Your task to perform on an android device: Go to Android settings Image 0: 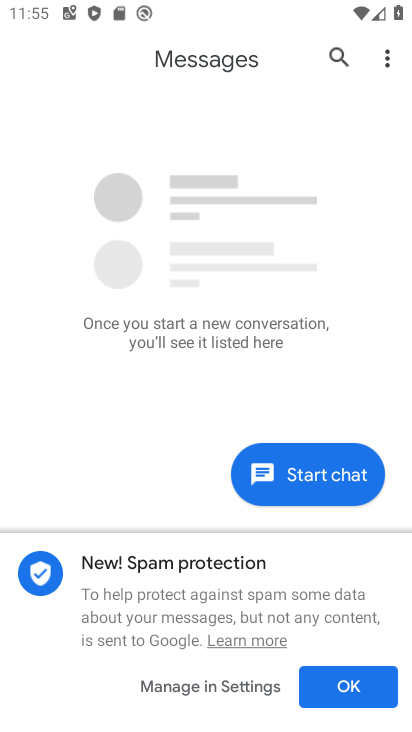
Step 0: press home button
Your task to perform on an android device: Go to Android settings Image 1: 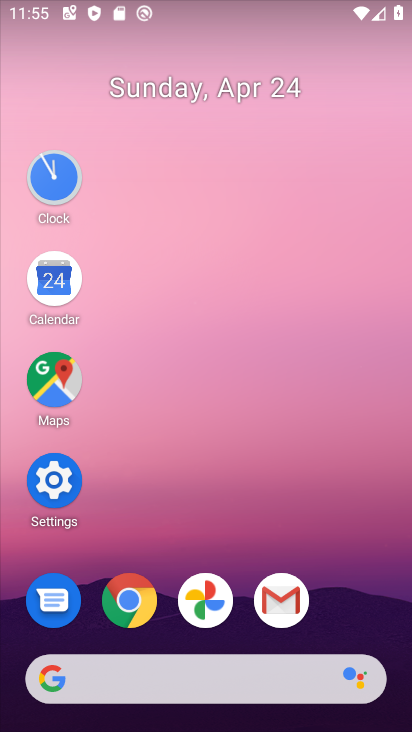
Step 1: click (60, 489)
Your task to perform on an android device: Go to Android settings Image 2: 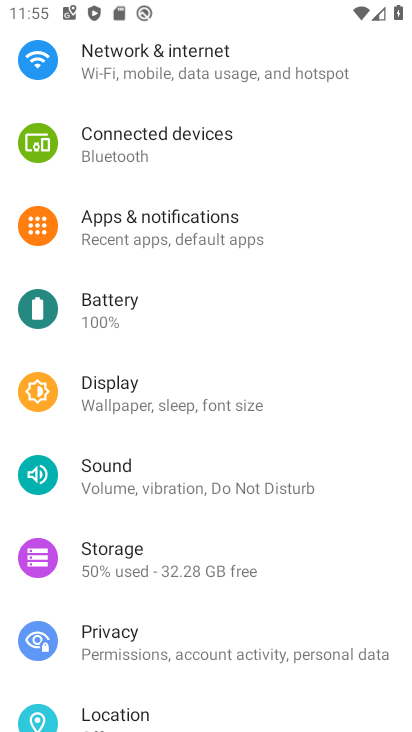
Step 2: drag from (214, 593) to (220, 11)
Your task to perform on an android device: Go to Android settings Image 3: 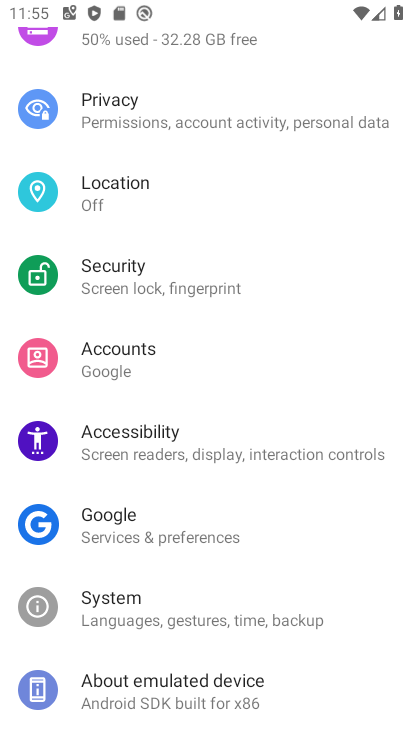
Step 3: click (164, 680)
Your task to perform on an android device: Go to Android settings Image 4: 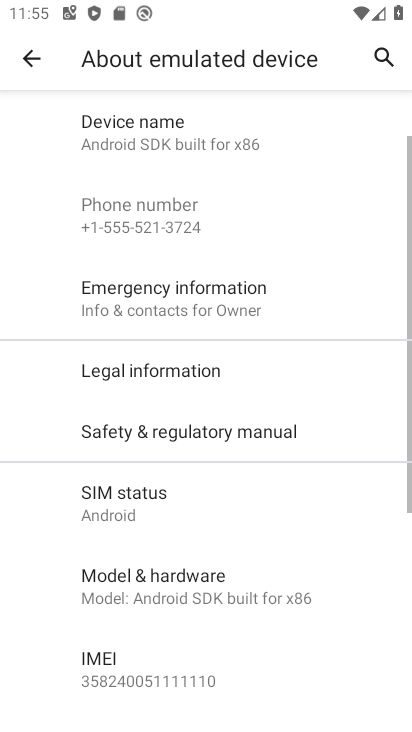
Step 4: drag from (186, 617) to (173, 246)
Your task to perform on an android device: Go to Android settings Image 5: 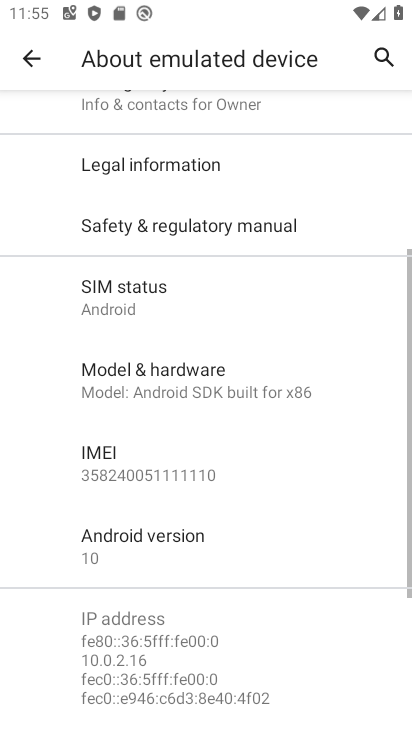
Step 5: click (131, 540)
Your task to perform on an android device: Go to Android settings Image 6: 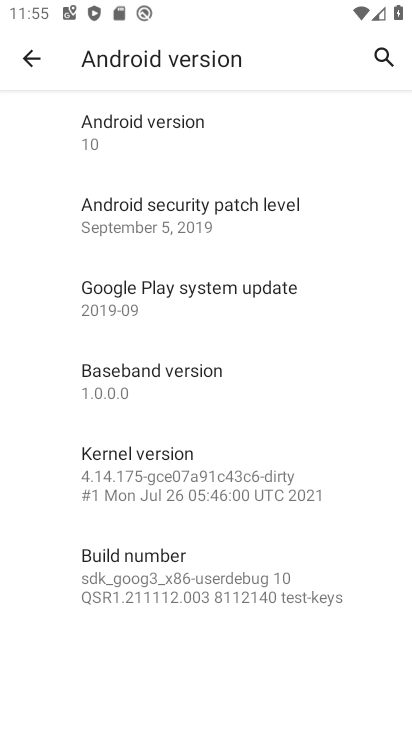
Step 6: task complete